Your task to perform on an android device: Open CNN.com Image 0: 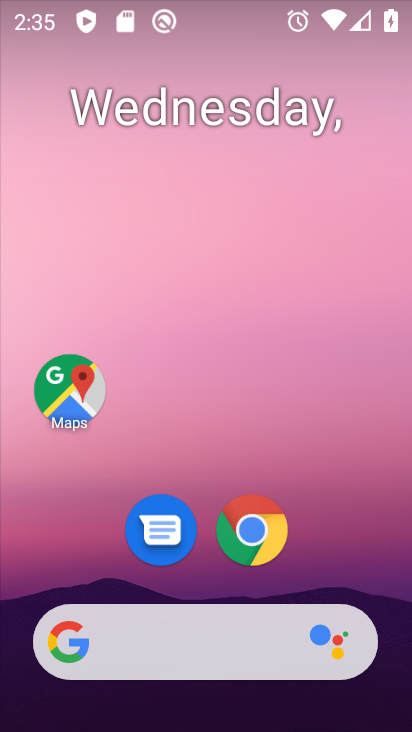
Step 0: click (250, 553)
Your task to perform on an android device: Open CNN.com Image 1: 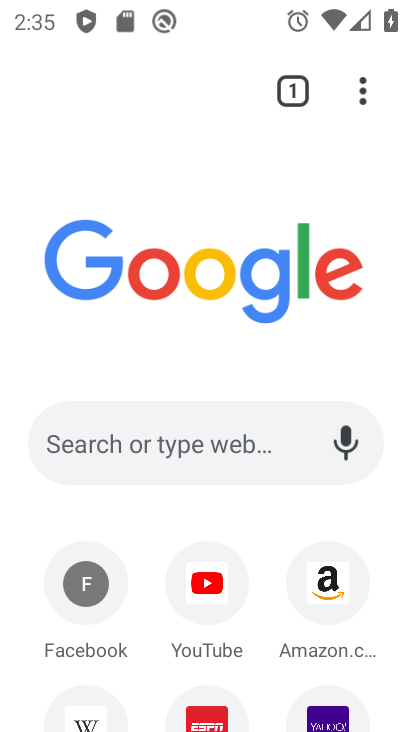
Step 1: click (184, 454)
Your task to perform on an android device: Open CNN.com Image 2: 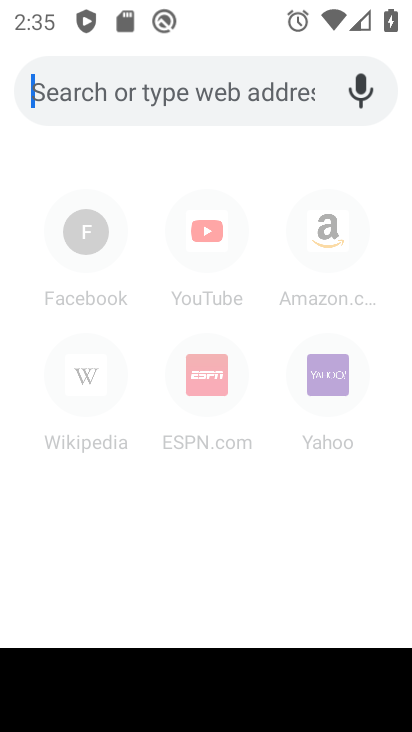
Step 2: type "cnn.com"
Your task to perform on an android device: Open CNN.com Image 3: 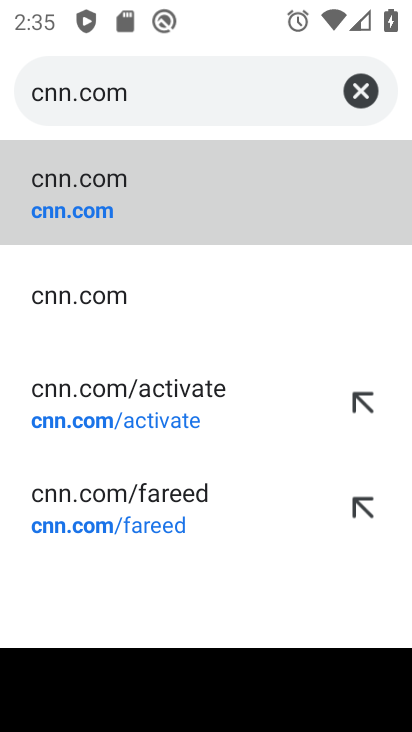
Step 3: click (151, 213)
Your task to perform on an android device: Open CNN.com Image 4: 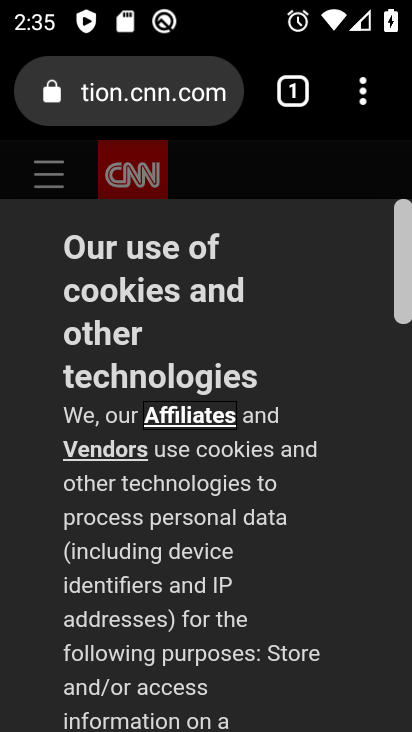
Step 4: task complete